Your task to perform on an android device: Go to Yahoo.com Image 0: 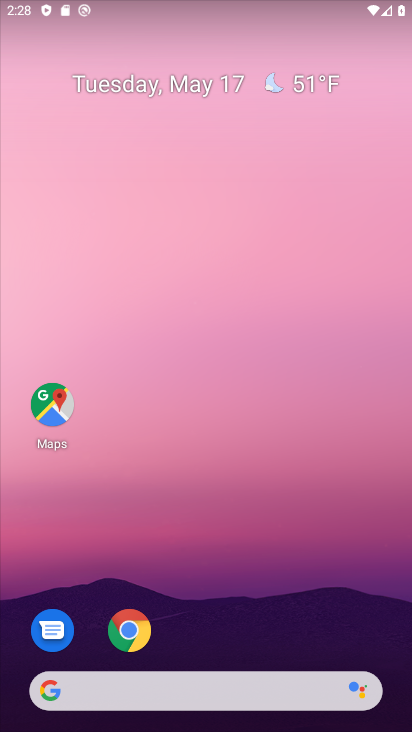
Step 0: click (253, 163)
Your task to perform on an android device: Go to Yahoo.com Image 1: 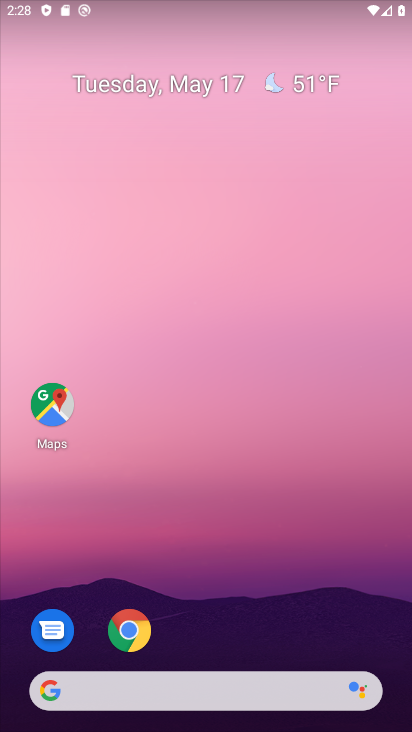
Step 1: click (139, 639)
Your task to perform on an android device: Go to Yahoo.com Image 2: 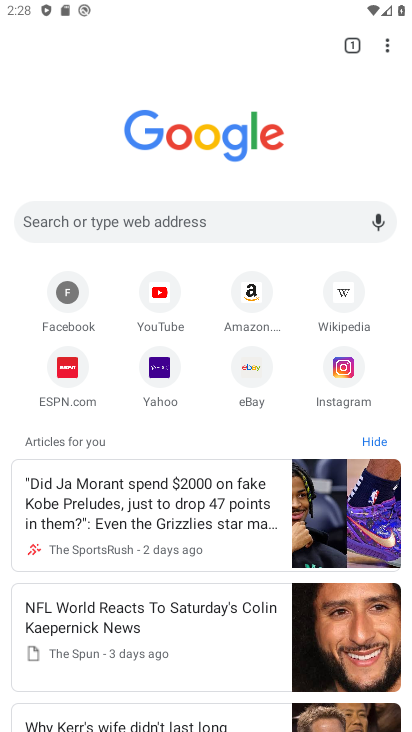
Step 2: click (155, 383)
Your task to perform on an android device: Go to Yahoo.com Image 3: 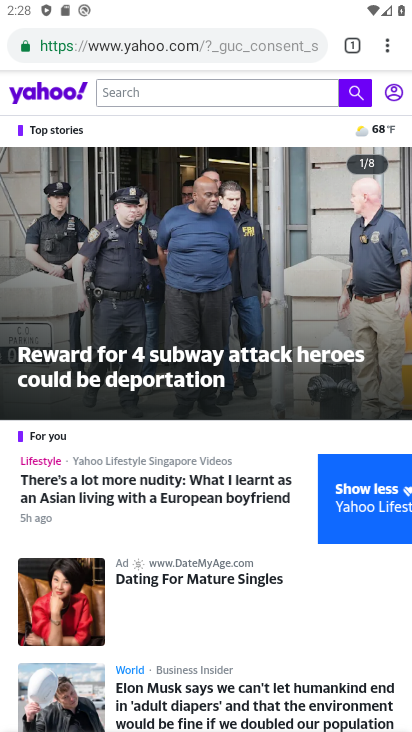
Step 3: task complete